Your task to perform on an android device: Open settings Image 0: 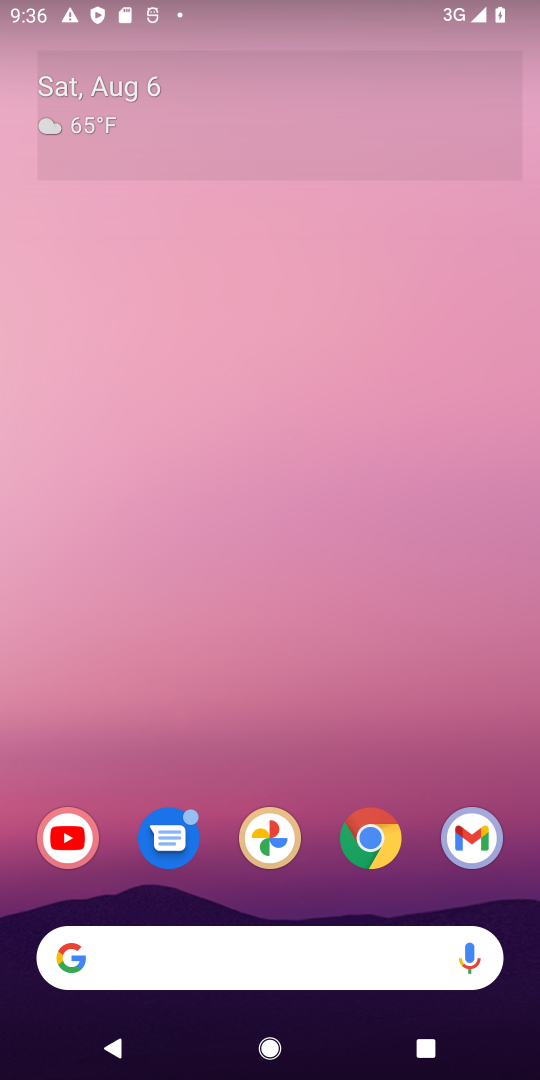
Step 0: drag from (417, 885) to (214, 27)
Your task to perform on an android device: Open settings Image 1: 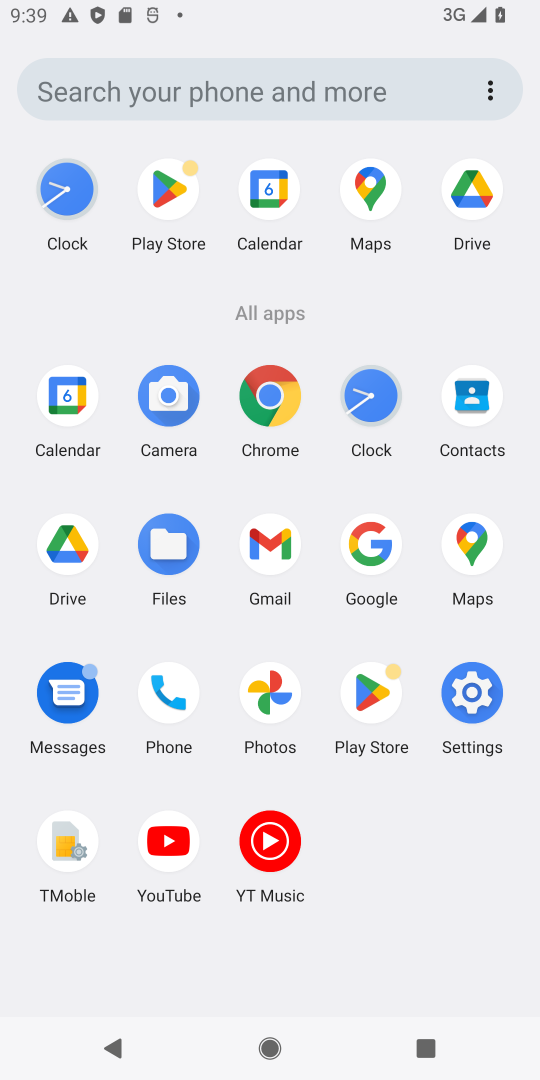
Step 1: click (466, 693)
Your task to perform on an android device: Open settings Image 2: 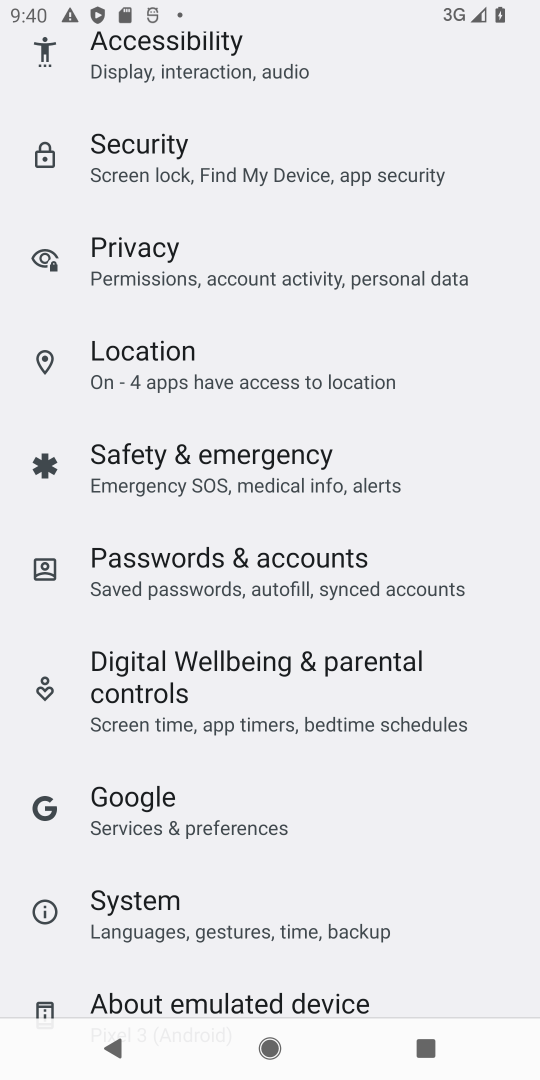
Step 2: task complete